Your task to perform on an android device: star an email in the gmail app Image 0: 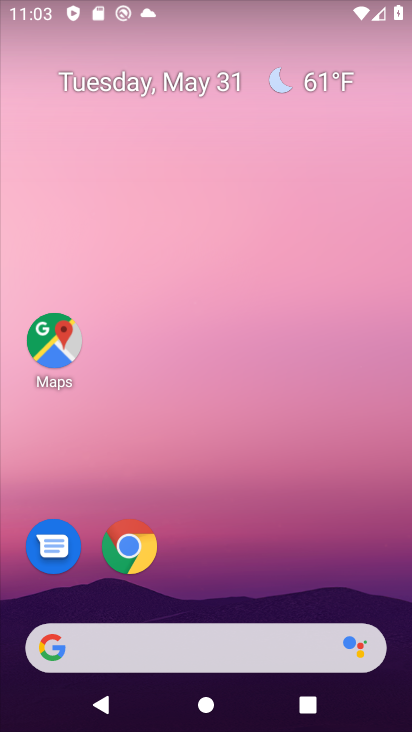
Step 0: drag from (202, 611) to (327, 63)
Your task to perform on an android device: star an email in the gmail app Image 1: 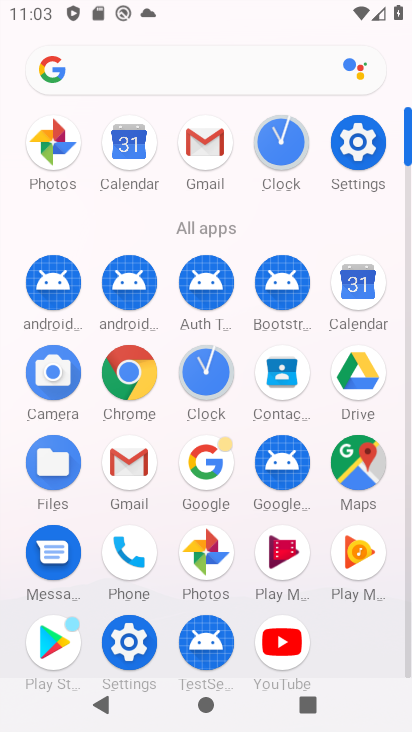
Step 1: click (136, 477)
Your task to perform on an android device: star an email in the gmail app Image 2: 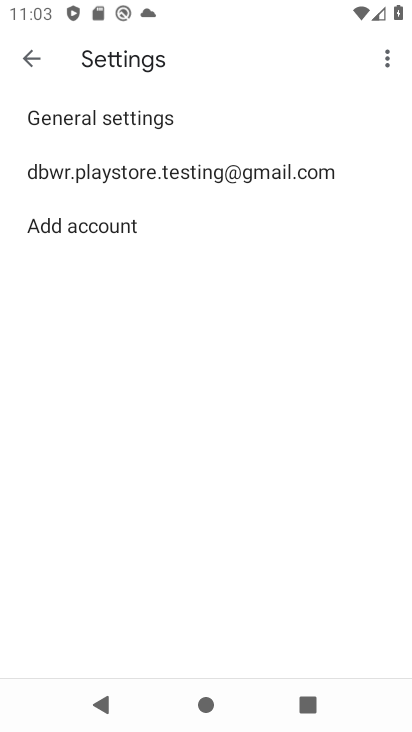
Step 2: click (22, 56)
Your task to perform on an android device: star an email in the gmail app Image 3: 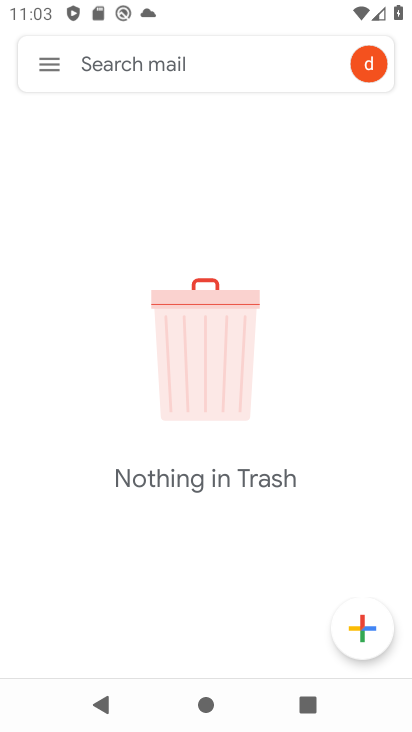
Step 3: drag from (251, 232) to (256, 631)
Your task to perform on an android device: star an email in the gmail app Image 4: 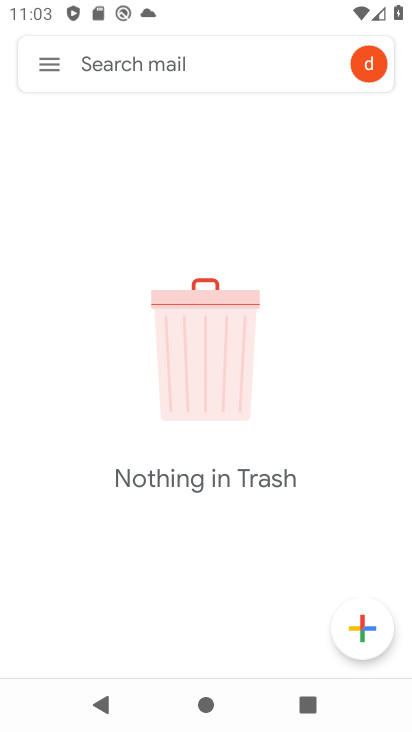
Step 4: click (45, 60)
Your task to perform on an android device: star an email in the gmail app Image 5: 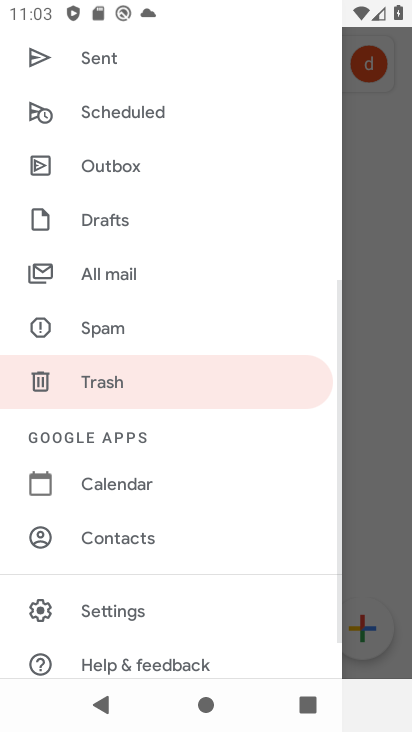
Step 5: click (124, 259)
Your task to perform on an android device: star an email in the gmail app Image 6: 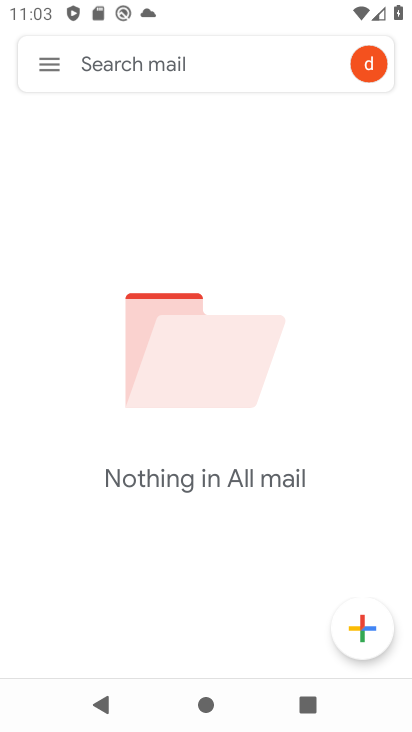
Step 6: task complete